Your task to perform on an android device: install app "ZOOM Cloud Meetings" Image 0: 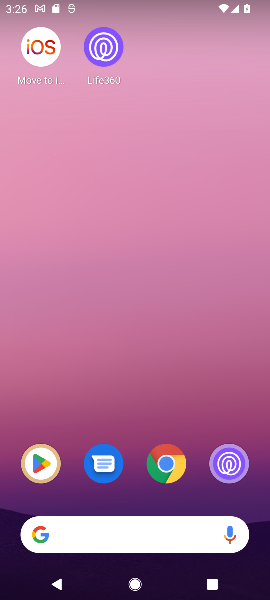
Step 0: press home button
Your task to perform on an android device: install app "ZOOM Cloud Meetings" Image 1: 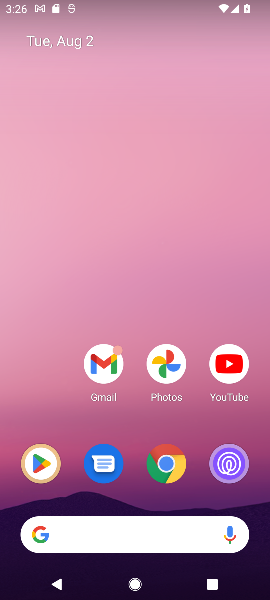
Step 1: click (35, 458)
Your task to perform on an android device: install app "ZOOM Cloud Meetings" Image 2: 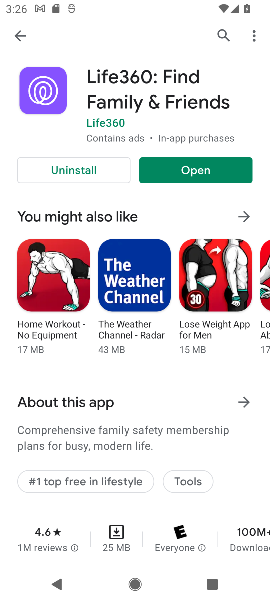
Step 2: click (224, 34)
Your task to perform on an android device: install app "ZOOM Cloud Meetings" Image 3: 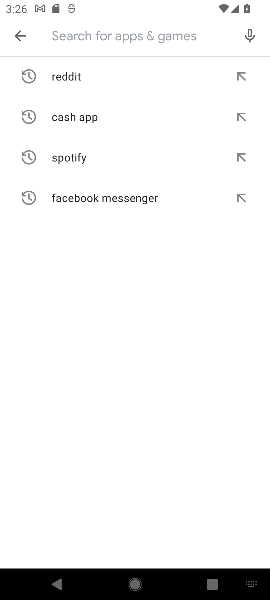
Step 3: type "ZOOM Cloud Meetings"
Your task to perform on an android device: install app "ZOOM Cloud Meetings" Image 4: 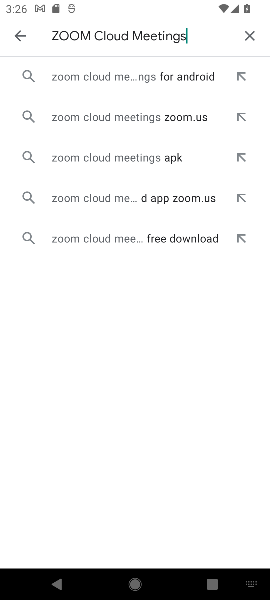
Step 4: click (89, 73)
Your task to perform on an android device: install app "ZOOM Cloud Meetings" Image 5: 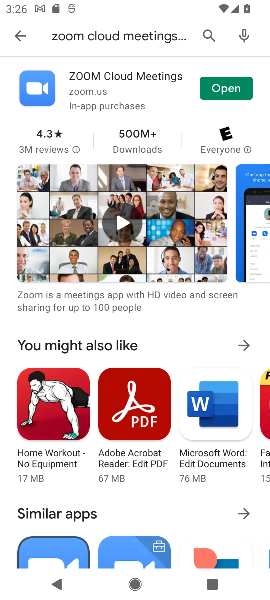
Step 5: task complete